Your task to perform on an android device: Is it going to rain this weekend? Image 0: 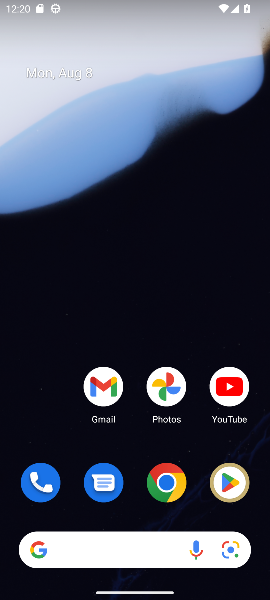
Step 0: drag from (91, 556) to (29, 139)
Your task to perform on an android device: Is it going to rain this weekend? Image 1: 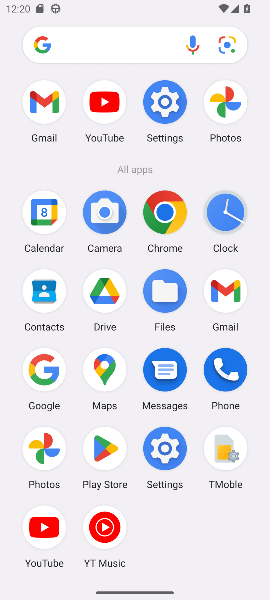
Step 1: click (54, 379)
Your task to perform on an android device: Is it going to rain this weekend? Image 2: 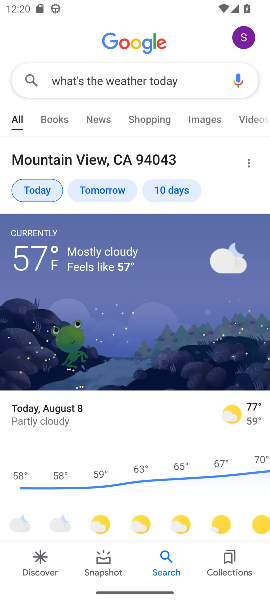
Step 2: click (189, 92)
Your task to perform on an android device: Is it going to rain this weekend? Image 3: 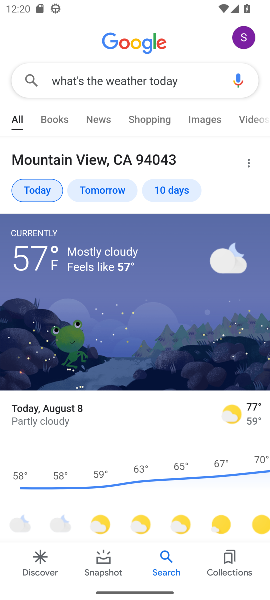
Step 3: click (189, 92)
Your task to perform on an android device: Is it going to rain this weekend? Image 4: 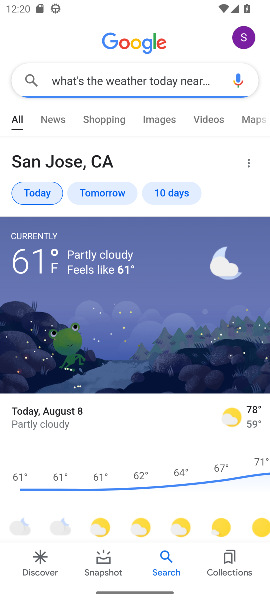
Step 4: click (189, 79)
Your task to perform on an android device: Is it going to rain this weekend? Image 5: 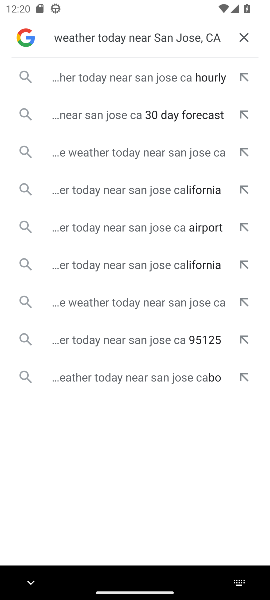
Step 5: click (246, 34)
Your task to perform on an android device: Is it going to rain this weekend? Image 6: 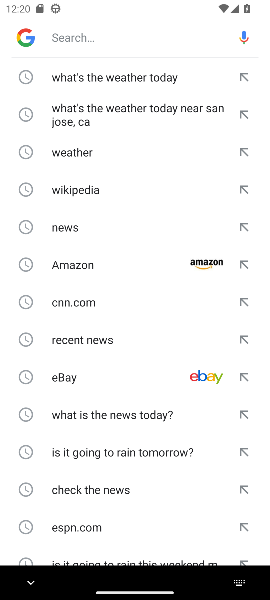
Step 6: click (158, 558)
Your task to perform on an android device: Is it going to rain this weekend? Image 7: 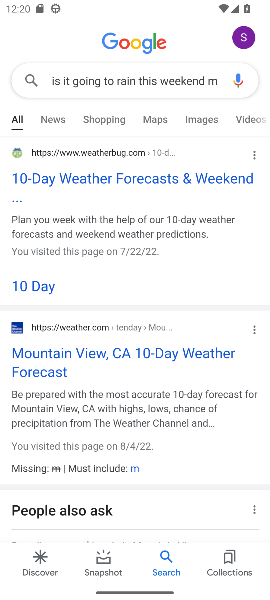
Step 7: task complete